Your task to perform on an android device: Go to display settings Image 0: 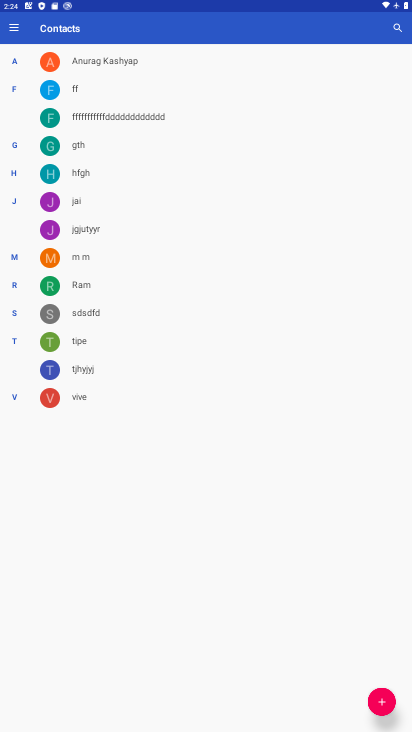
Step 0: press home button
Your task to perform on an android device: Go to display settings Image 1: 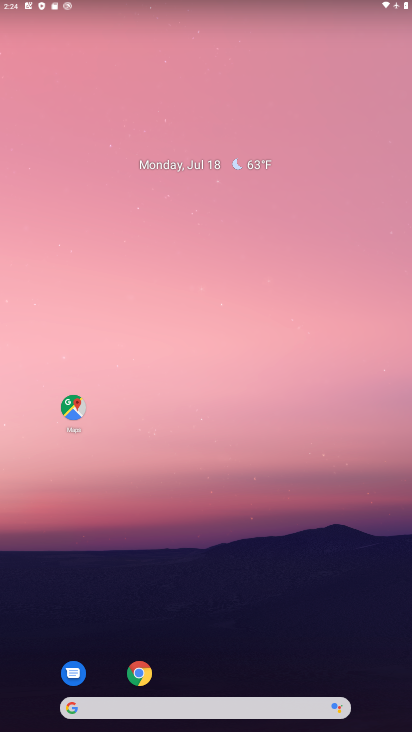
Step 1: drag from (223, 664) to (223, 213)
Your task to perform on an android device: Go to display settings Image 2: 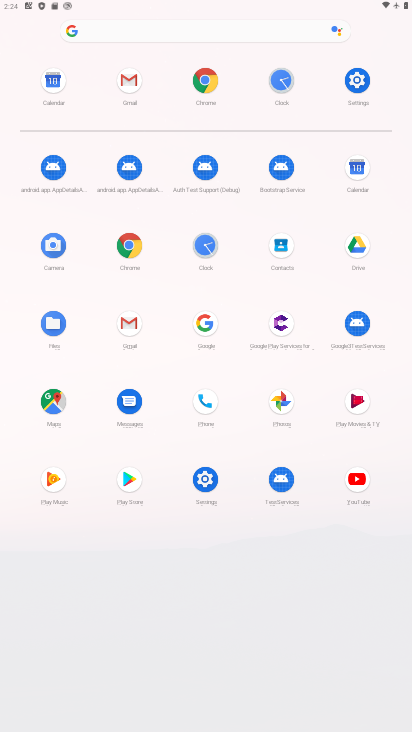
Step 2: click (359, 82)
Your task to perform on an android device: Go to display settings Image 3: 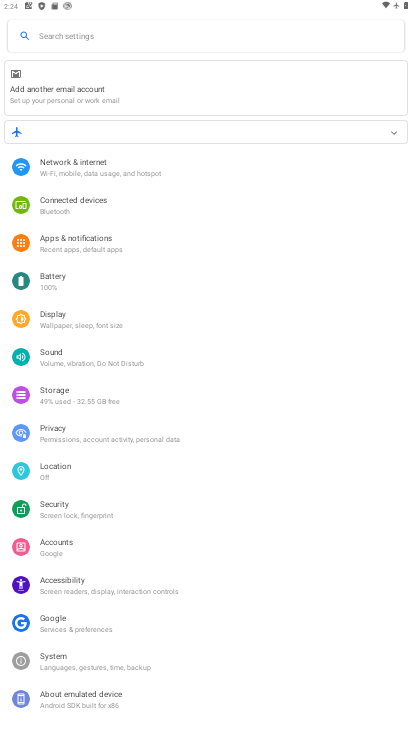
Step 3: click (66, 315)
Your task to perform on an android device: Go to display settings Image 4: 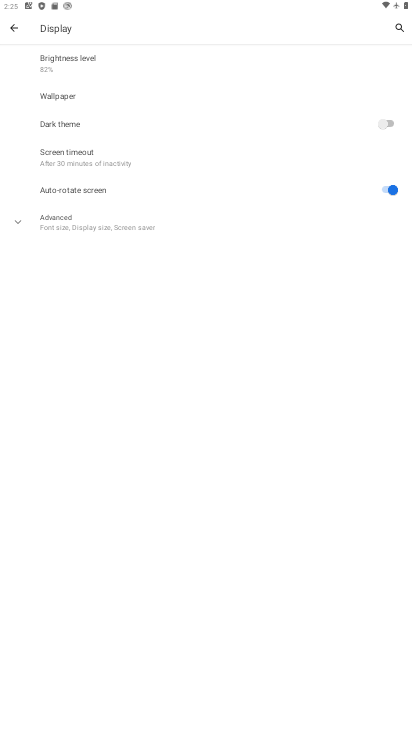
Step 4: task complete